Your task to perform on an android device: open app "Fetch Rewards" (install if not already installed), go to login, and select forgot password Image 0: 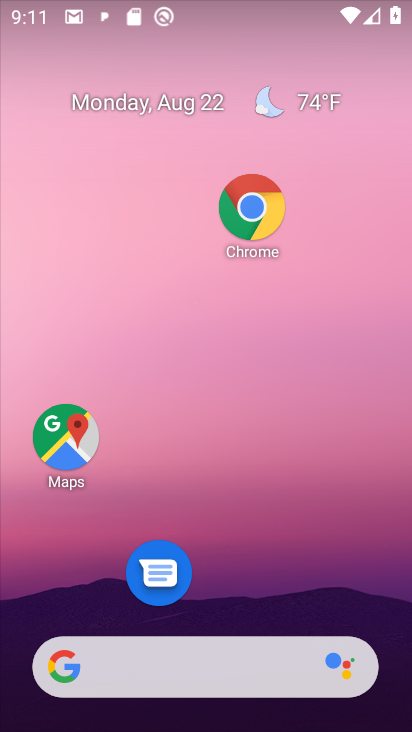
Step 0: drag from (235, 609) to (271, 13)
Your task to perform on an android device: open app "Fetch Rewards" (install if not already installed), go to login, and select forgot password Image 1: 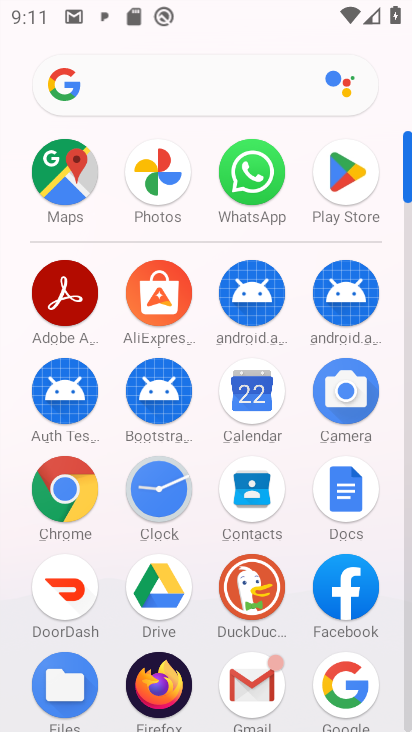
Step 1: click (343, 174)
Your task to perform on an android device: open app "Fetch Rewards" (install if not already installed), go to login, and select forgot password Image 2: 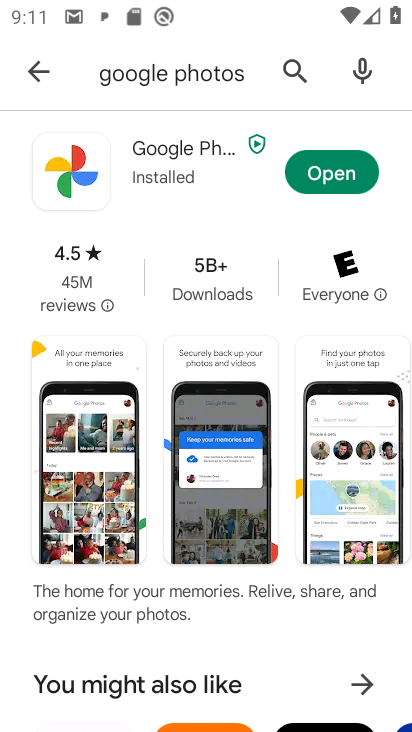
Step 2: click (197, 66)
Your task to perform on an android device: open app "Fetch Rewards" (install if not already installed), go to login, and select forgot password Image 3: 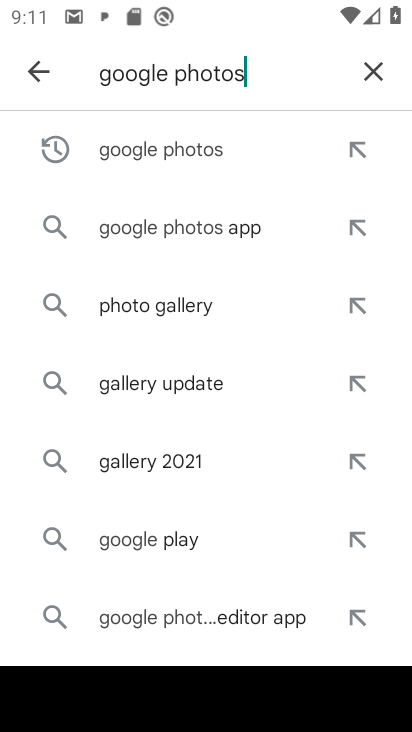
Step 3: click (373, 65)
Your task to perform on an android device: open app "Fetch Rewards" (install if not already installed), go to login, and select forgot password Image 4: 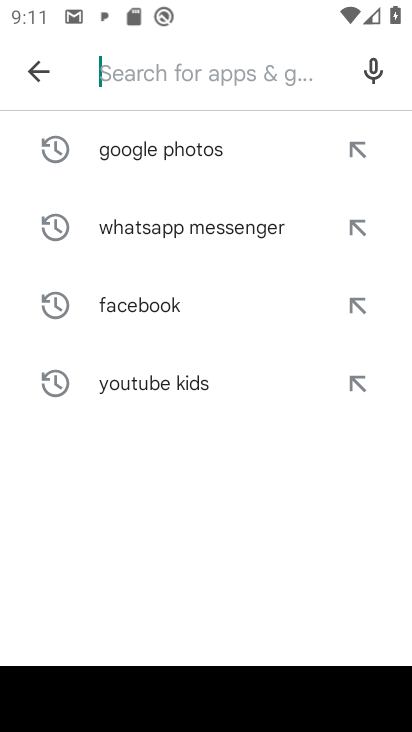
Step 4: type "Fetch Rewards"
Your task to perform on an android device: open app "Fetch Rewards" (install if not already installed), go to login, and select forgot password Image 5: 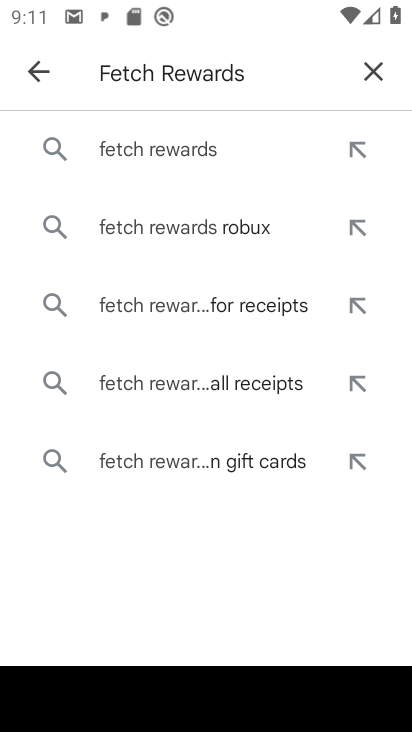
Step 5: click (178, 157)
Your task to perform on an android device: open app "Fetch Rewards" (install if not already installed), go to login, and select forgot password Image 6: 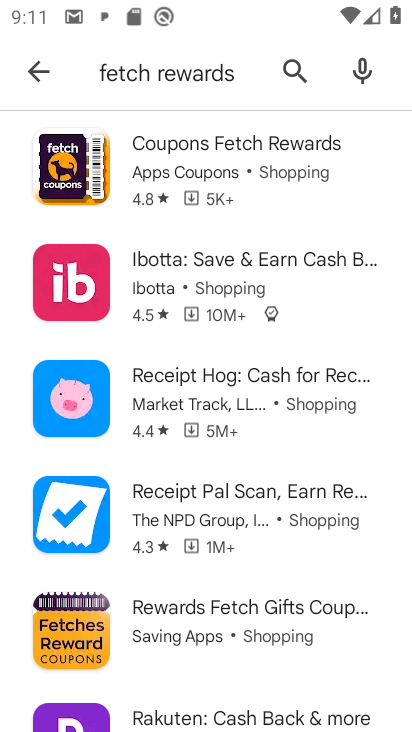
Step 6: task complete